Your task to perform on an android device: toggle location history Image 0: 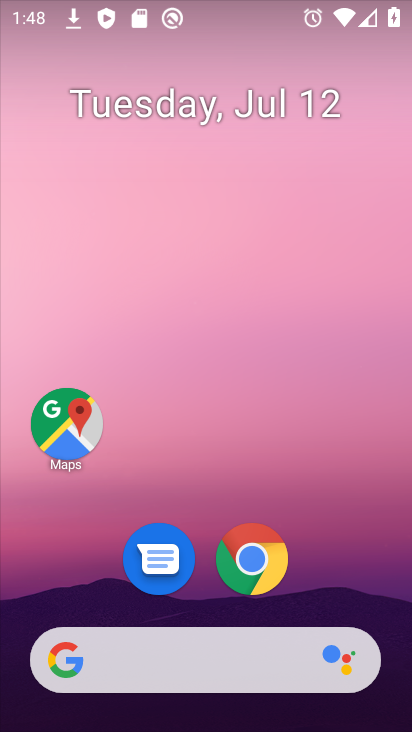
Step 0: drag from (361, 535) to (349, 298)
Your task to perform on an android device: toggle location history Image 1: 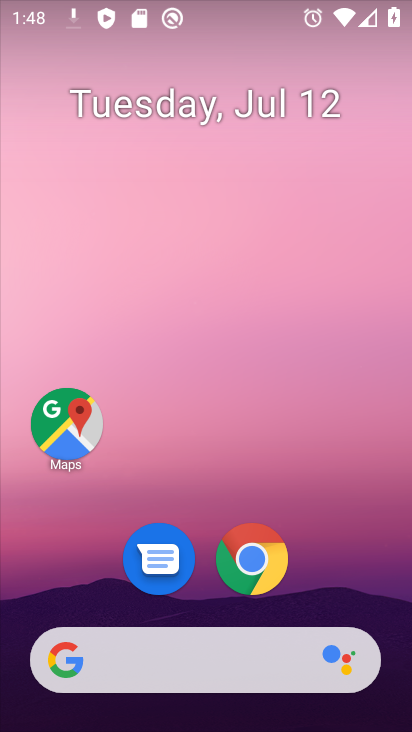
Step 1: drag from (367, 585) to (345, 201)
Your task to perform on an android device: toggle location history Image 2: 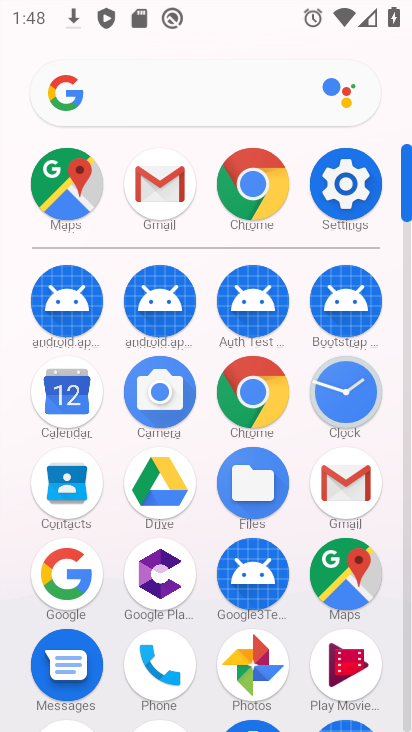
Step 2: click (358, 191)
Your task to perform on an android device: toggle location history Image 3: 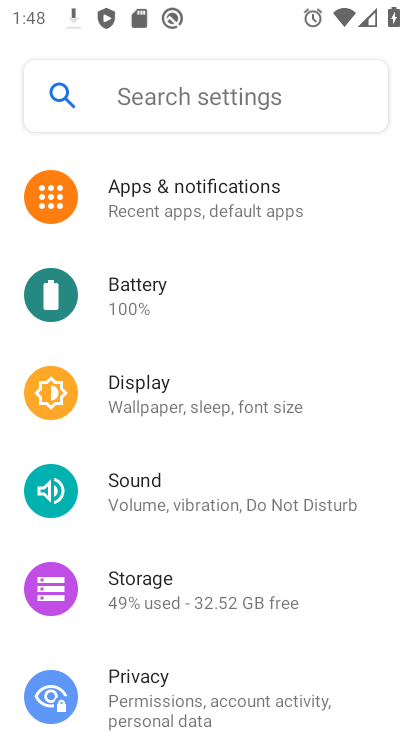
Step 3: drag from (361, 371) to (369, 277)
Your task to perform on an android device: toggle location history Image 4: 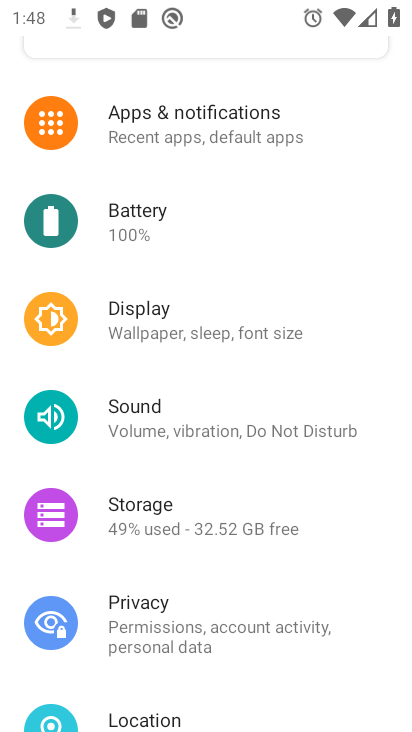
Step 4: drag from (374, 394) to (369, 290)
Your task to perform on an android device: toggle location history Image 5: 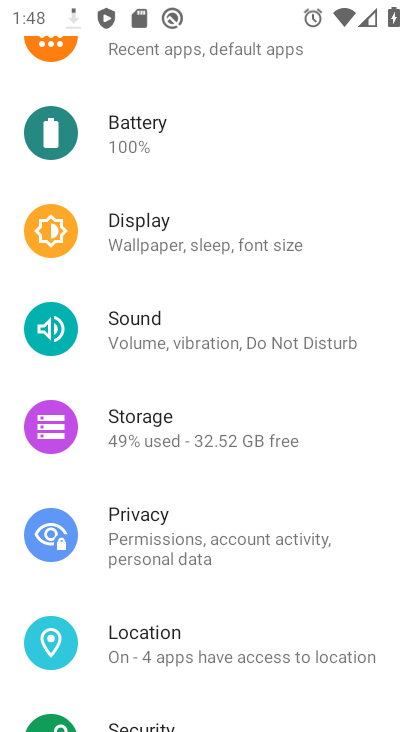
Step 5: drag from (364, 398) to (372, 296)
Your task to perform on an android device: toggle location history Image 6: 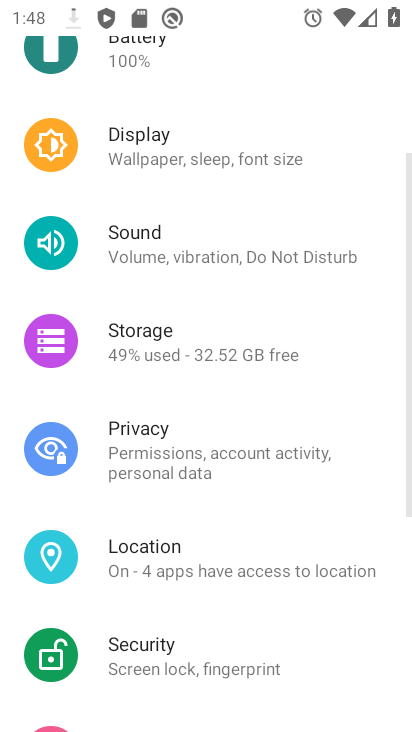
Step 6: drag from (352, 396) to (351, 301)
Your task to perform on an android device: toggle location history Image 7: 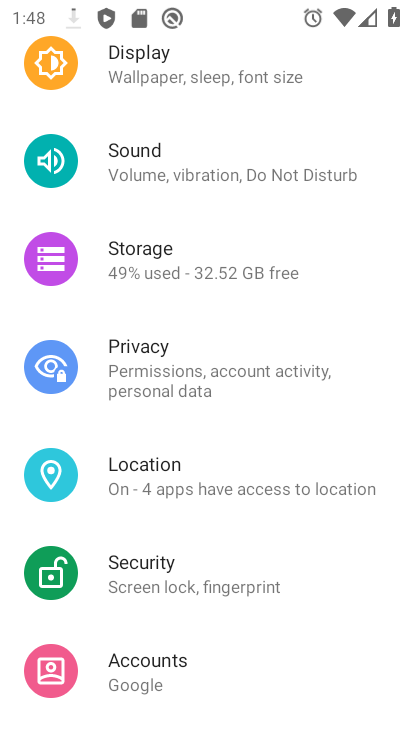
Step 7: drag from (355, 399) to (338, 186)
Your task to perform on an android device: toggle location history Image 8: 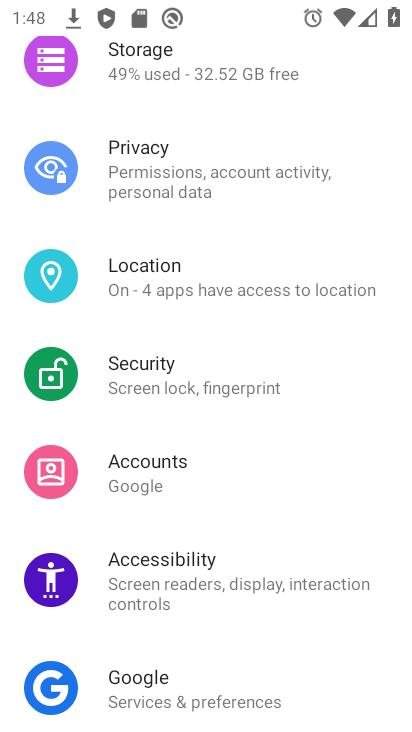
Step 8: drag from (337, 359) to (332, 167)
Your task to perform on an android device: toggle location history Image 9: 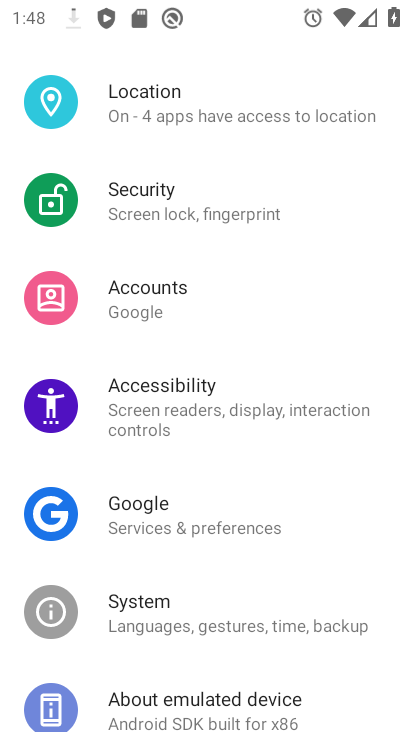
Step 9: click (297, 120)
Your task to perform on an android device: toggle location history Image 10: 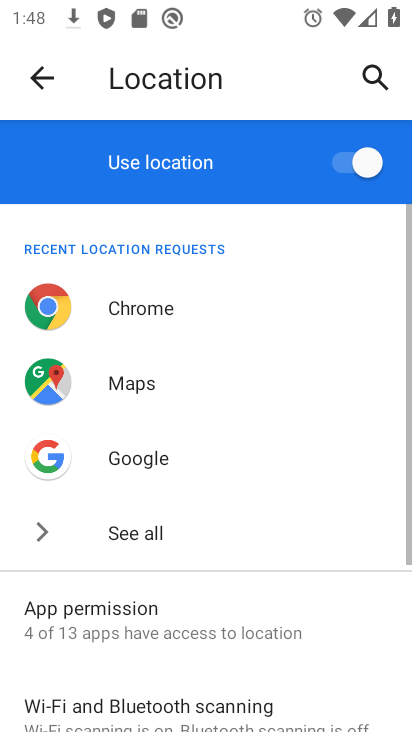
Step 10: drag from (307, 484) to (305, 343)
Your task to perform on an android device: toggle location history Image 11: 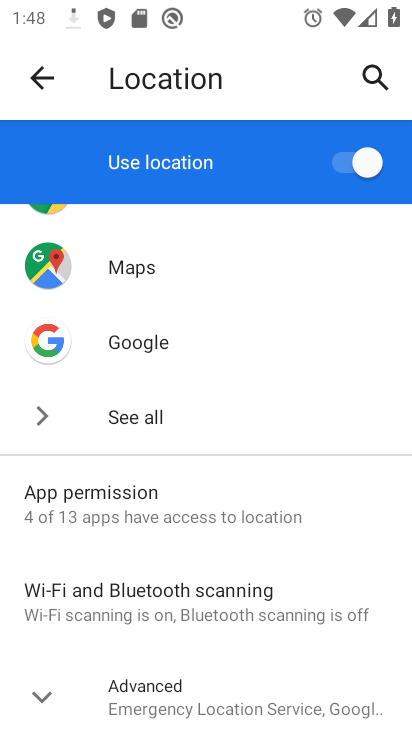
Step 11: drag from (315, 483) to (319, 328)
Your task to perform on an android device: toggle location history Image 12: 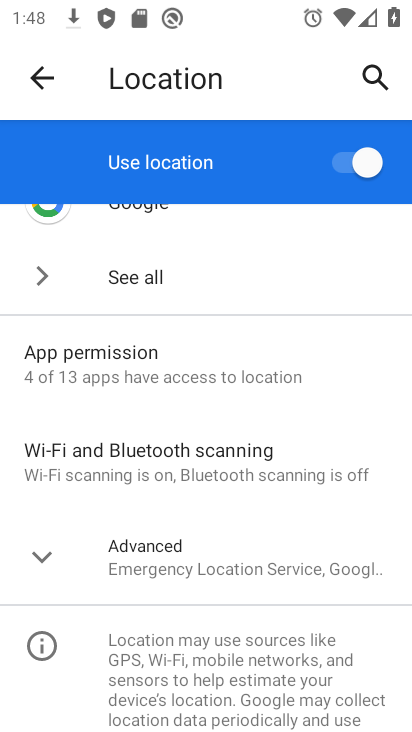
Step 12: drag from (323, 529) to (326, 370)
Your task to perform on an android device: toggle location history Image 13: 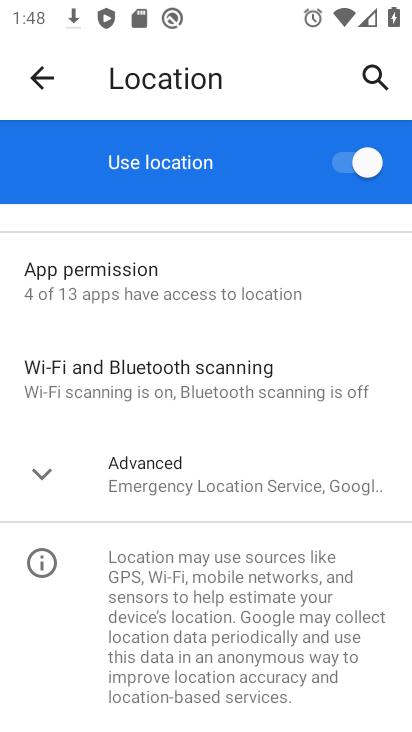
Step 13: click (317, 467)
Your task to perform on an android device: toggle location history Image 14: 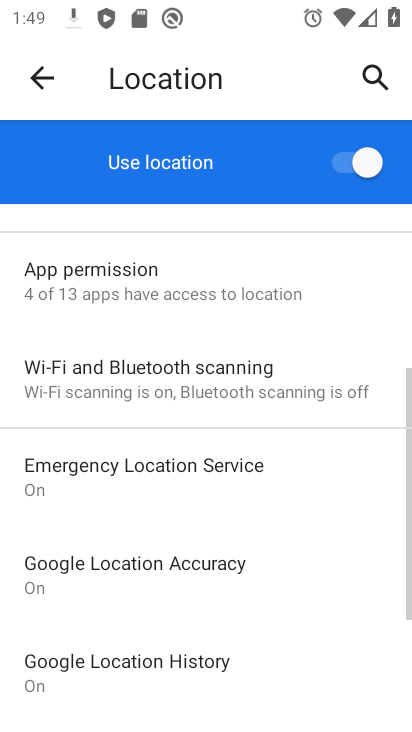
Step 14: drag from (324, 536) to (323, 428)
Your task to perform on an android device: toggle location history Image 15: 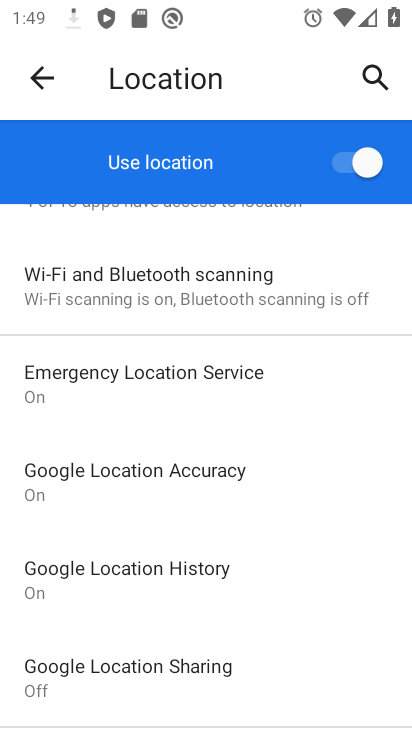
Step 15: drag from (326, 537) to (330, 417)
Your task to perform on an android device: toggle location history Image 16: 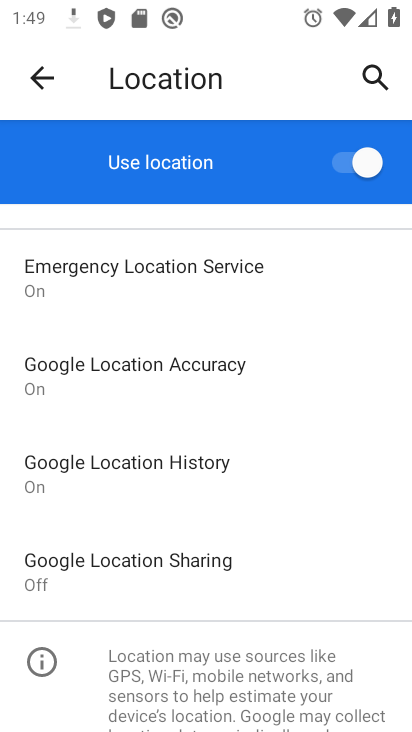
Step 16: click (270, 475)
Your task to perform on an android device: toggle location history Image 17: 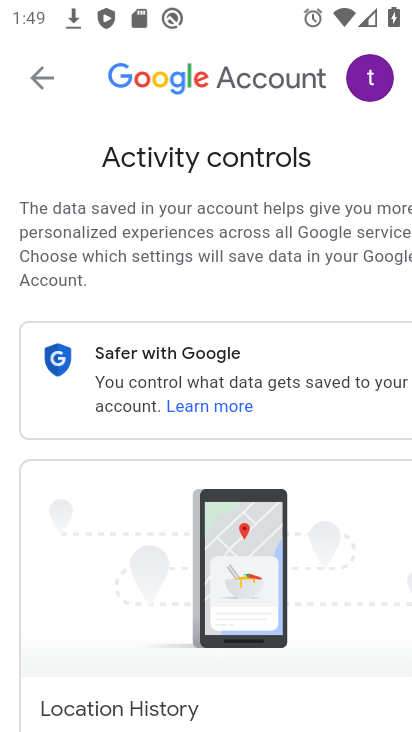
Step 17: drag from (311, 523) to (307, 289)
Your task to perform on an android device: toggle location history Image 18: 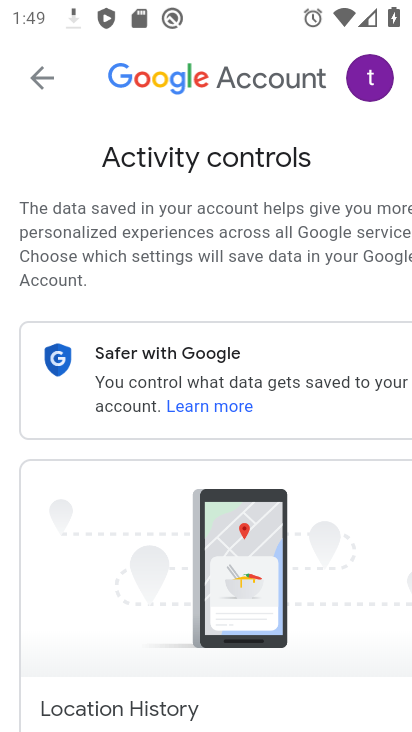
Step 18: drag from (146, 589) to (144, 356)
Your task to perform on an android device: toggle location history Image 19: 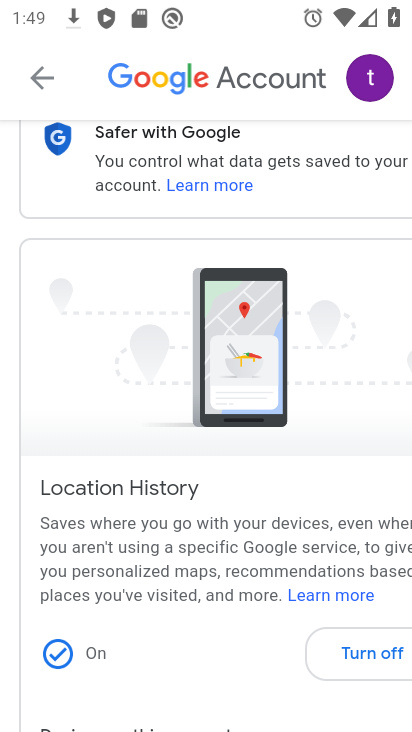
Step 19: click (345, 647)
Your task to perform on an android device: toggle location history Image 20: 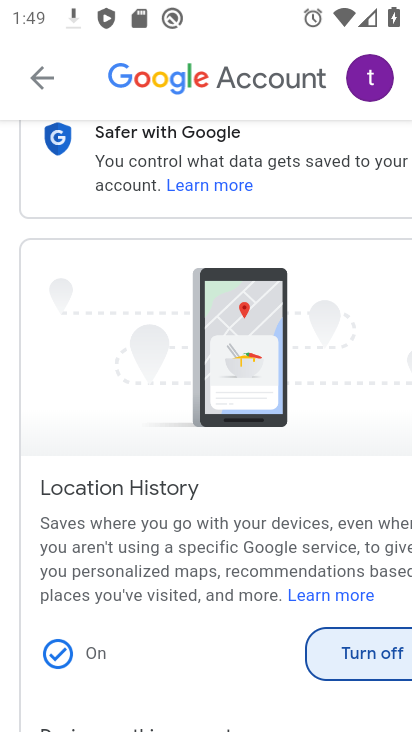
Step 20: click (359, 652)
Your task to perform on an android device: toggle location history Image 21: 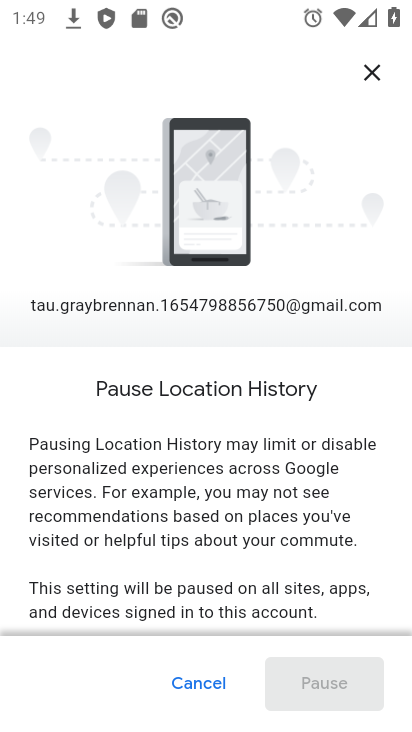
Step 21: drag from (234, 506) to (222, 373)
Your task to perform on an android device: toggle location history Image 22: 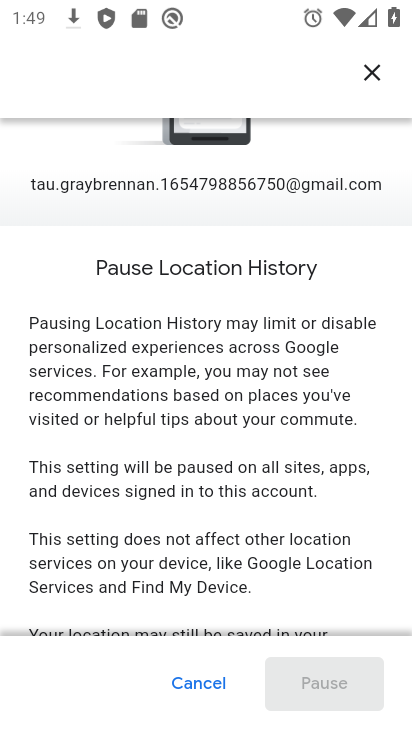
Step 22: drag from (242, 545) to (246, 407)
Your task to perform on an android device: toggle location history Image 23: 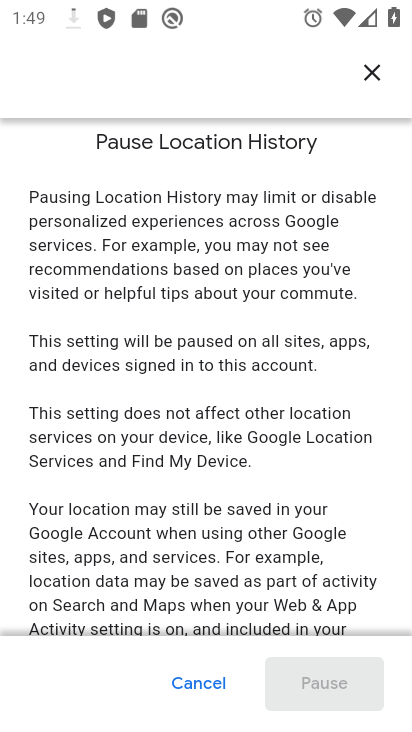
Step 23: drag from (247, 569) to (253, 418)
Your task to perform on an android device: toggle location history Image 24: 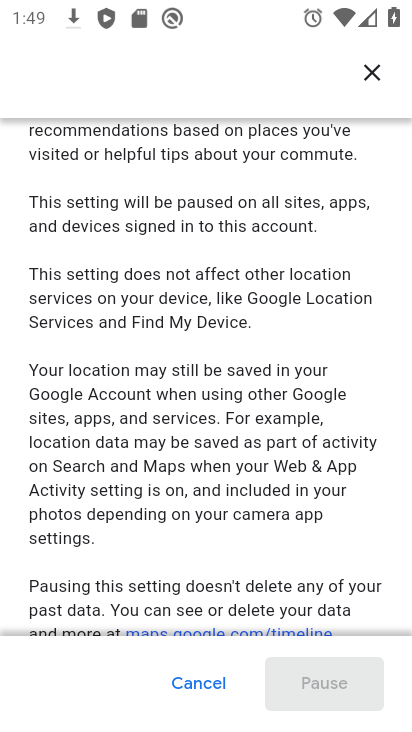
Step 24: drag from (253, 563) to (250, 408)
Your task to perform on an android device: toggle location history Image 25: 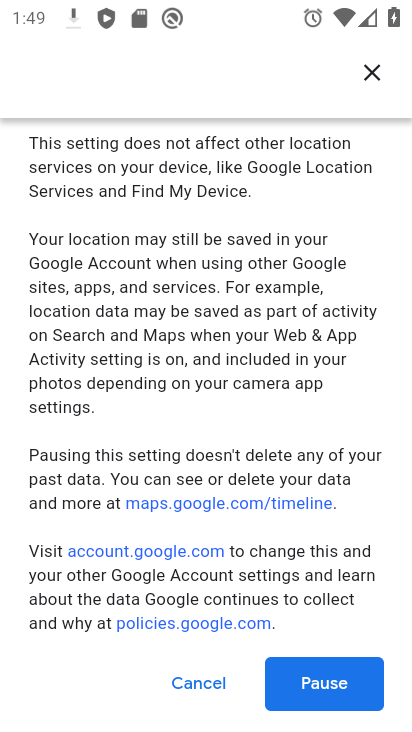
Step 25: click (304, 693)
Your task to perform on an android device: toggle location history Image 26: 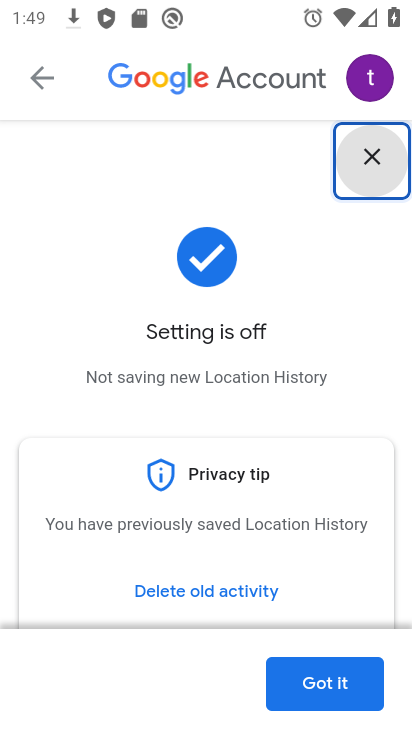
Step 26: task complete